Your task to perform on an android device: clear all cookies in the chrome app Image 0: 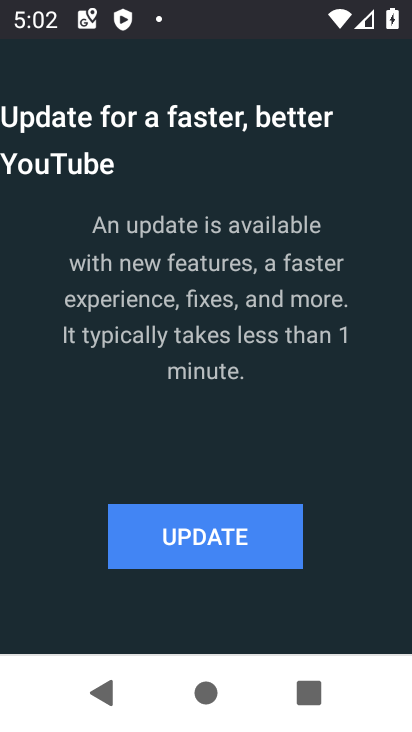
Step 0: drag from (326, 533) to (295, 213)
Your task to perform on an android device: clear all cookies in the chrome app Image 1: 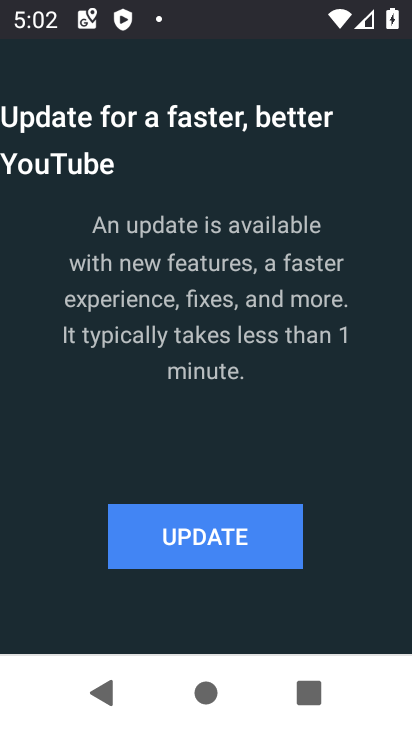
Step 1: press back button
Your task to perform on an android device: clear all cookies in the chrome app Image 2: 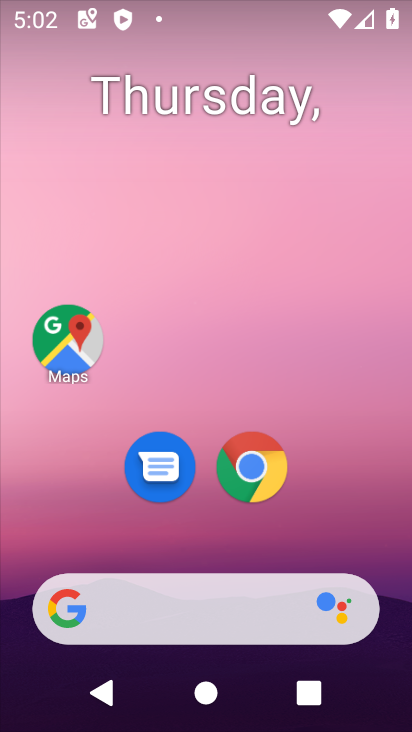
Step 2: drag from (402, 529) to (338, 140)
Your task to perform on an android device: clear all cookies in the chrome app Image 3: 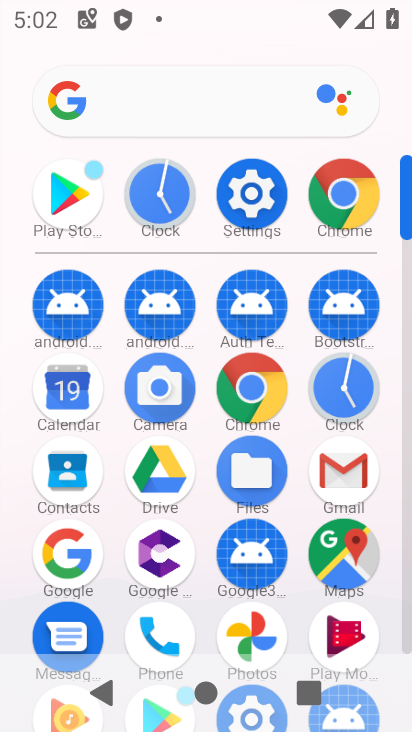
Step 3: click (347, 188)
Your task to perform on an android device: clear all cookies in the chrome app Image 4: 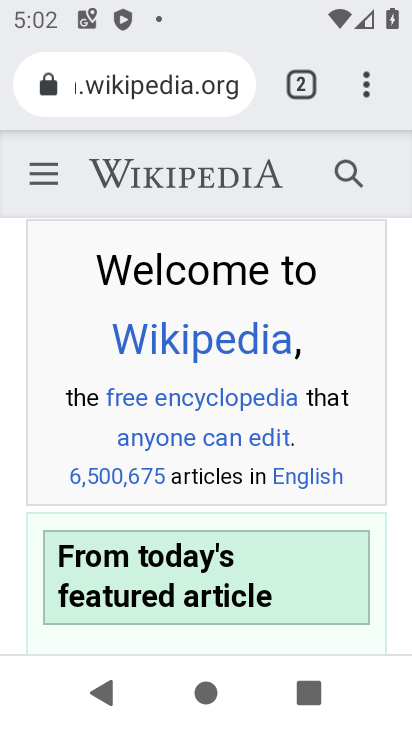
Step 4: click (359, 79)
Your task to perform on an android device: clear all cookies in the chrome app Image 5: 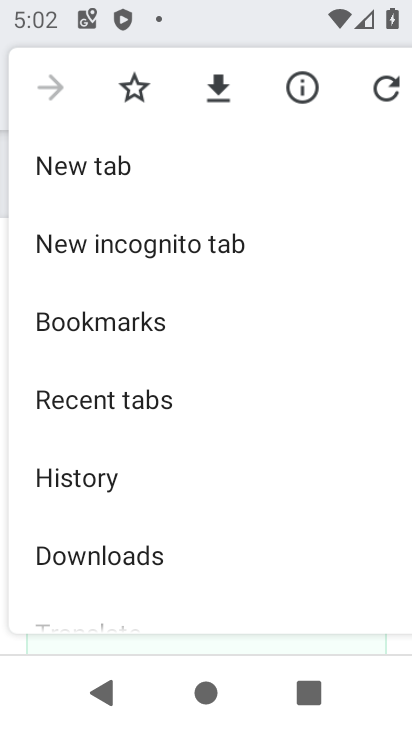
Step 5: click (204, 480)
Your task to perform on an android device: clear all cookies in the chrome app Image 6: 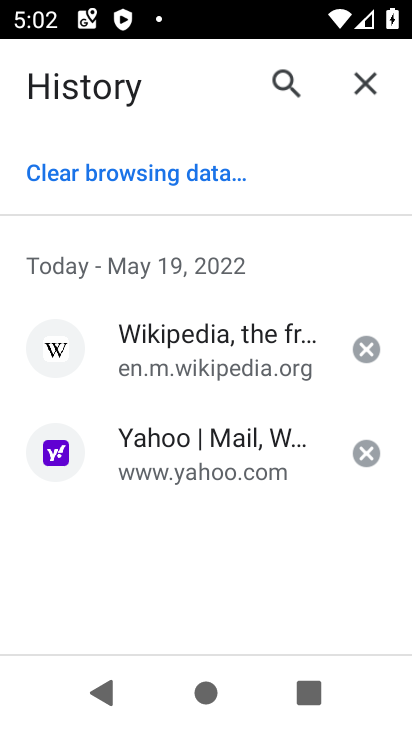
Step 6: click (177, 175)
Your task to perform on an android device: clear all cookies in the chrome app Image 7: 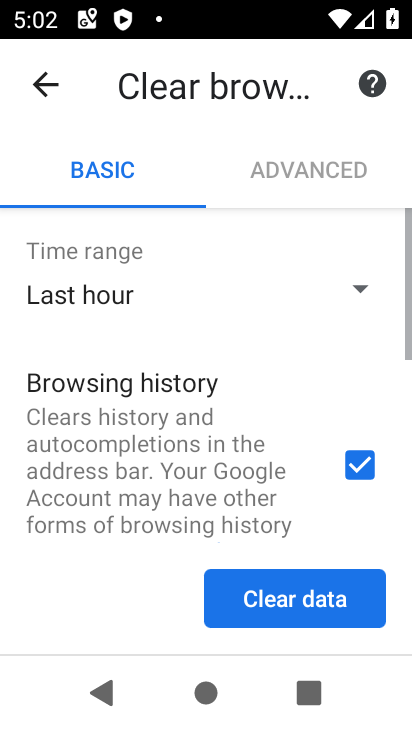
Step 7: click (338, 460)
Your task to perform on an android device: clear all cookies in the chrome app Image 8: 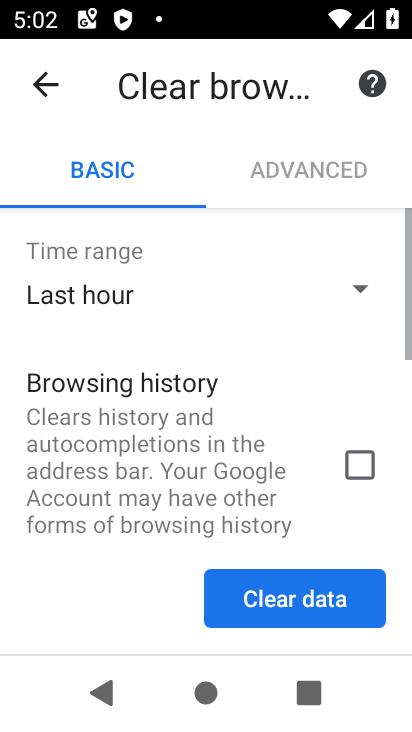
Step 8: drag from (264, 482) to (220, 208)
Your task to perform on an android device: clear all cookies in the chrome app Image 9: 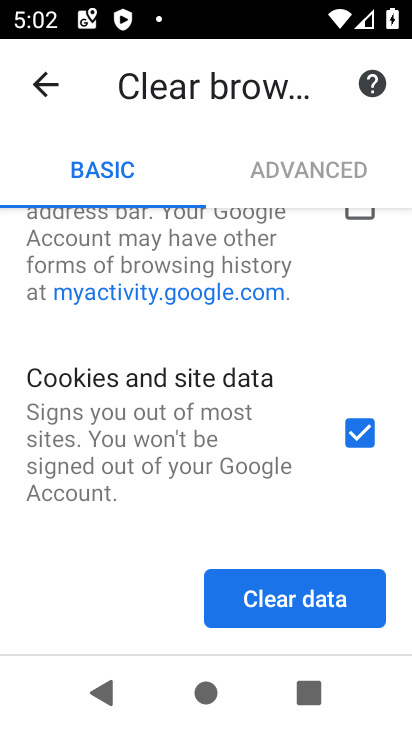
Step 9: click (337, 611)
Your task to perform on an android device: clear all cookies in the chrome app Image 10: 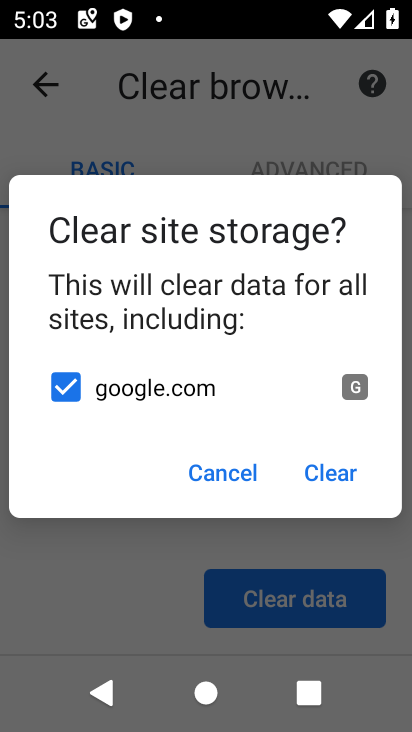
Step 10: click (323, 478)
Your task to perform on an android device: clear all cookies in the chrome app Image 11: 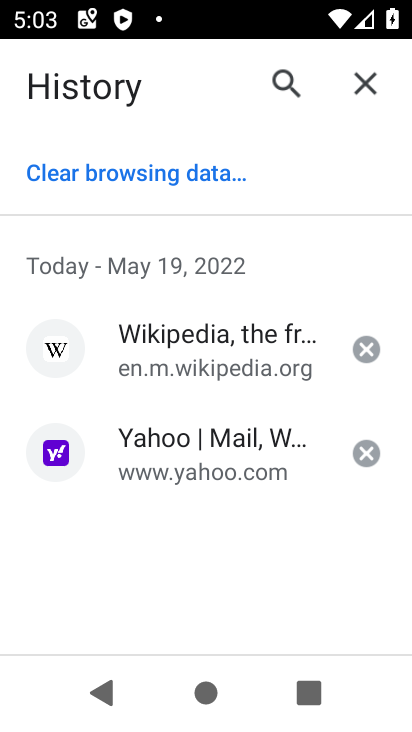
Step 11: task complete